Your task to perform on an android device: find photos in the google photos app Image 0: 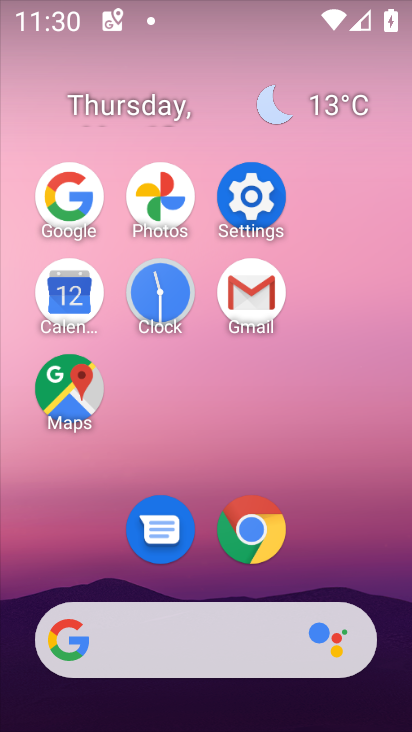
Step 0: click (177, 196)
Your task to perform on an android device: find photos in the google photos app Image 1: 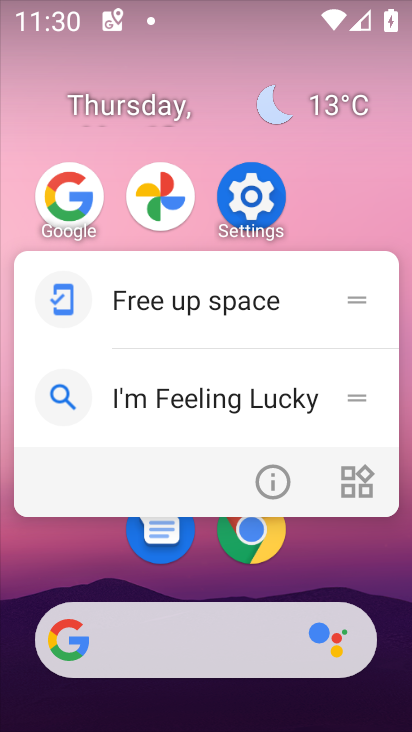
Step 1: click (157, 192)
Your task to perform on an android device: find photos in the google photos app Image 2: 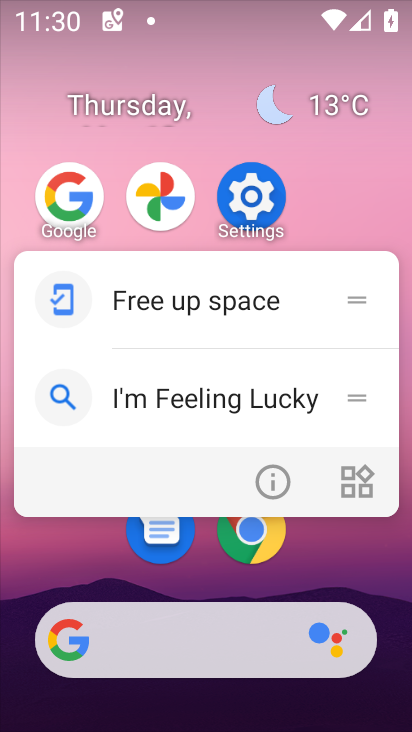
Step 2: click (177, 220)
Your task to perform on an android device: find photos in the google photos app Image 3: 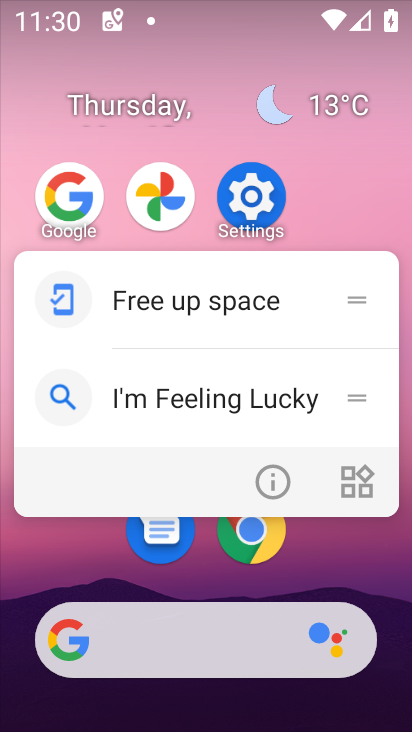
Step 3: click (177, 220)
Your task to perform on an android device: find photos in the google photos app Image 4: 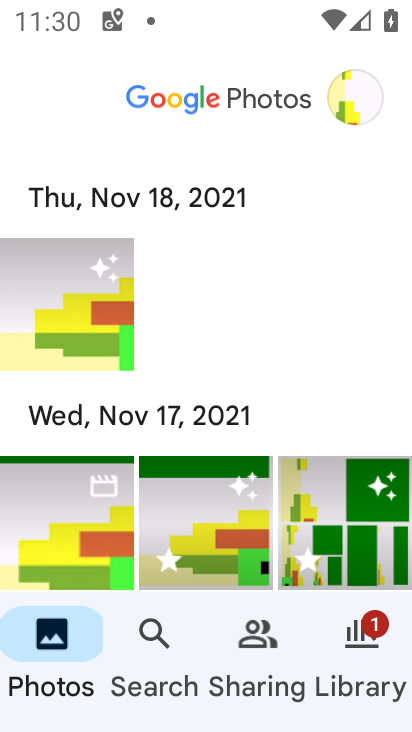
Step 4: click (122, 354)
Your task to perform on an android device: find photos in the google photos app Image 5: 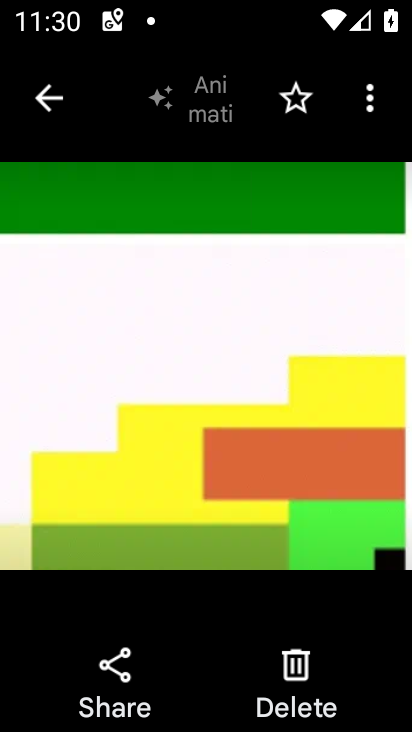
Step 5: task complete